Your task to perform on an android device: change timer sound Image 0: 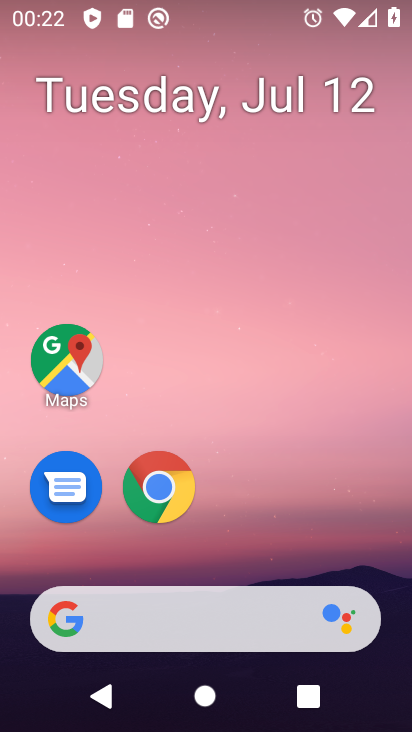
Step 0: drag from (297, 499) to (336, 116)
Your task to perform on an android device: change timer sound Image 1: 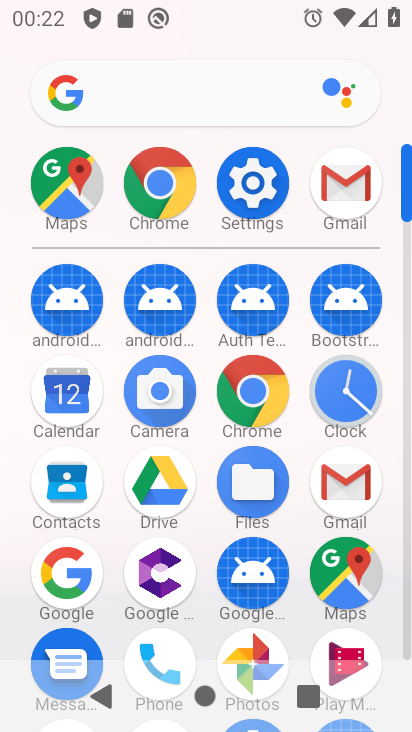
Step 1: click (348, 406)
Your task to perform on an android device: change timer sound Image 2: 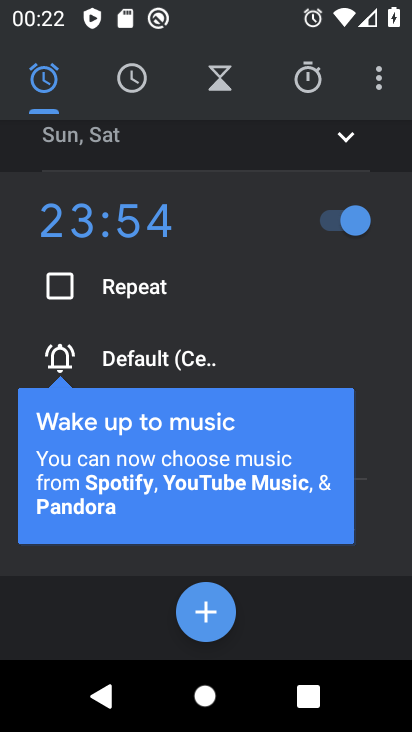
Step 2: click (379, 75)
Your task to perform on an android device: change timer sound Image 3: 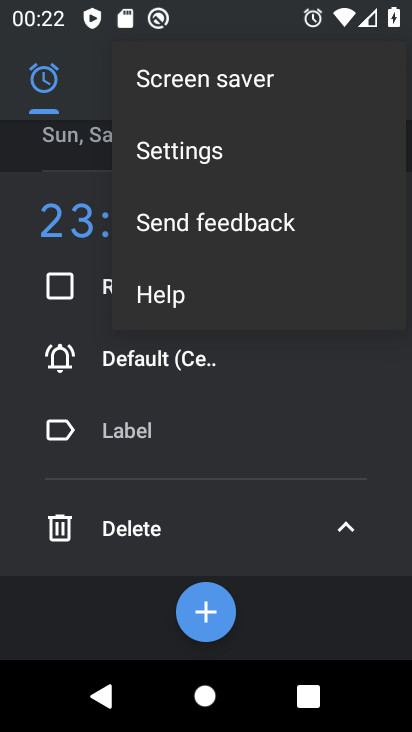
Step 3: click (195, 151)
Your task to perform on an android device: change timer sound Image 4: 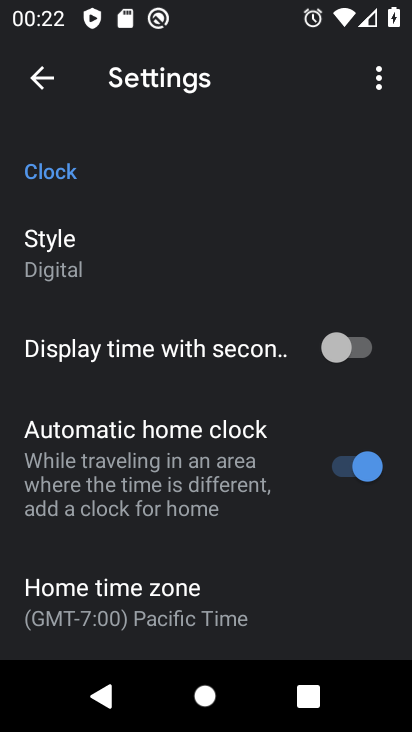
Step 4: drag from (266, 520) to (293, 240)
Your task to perform on an android device: change timer sound Image 5: 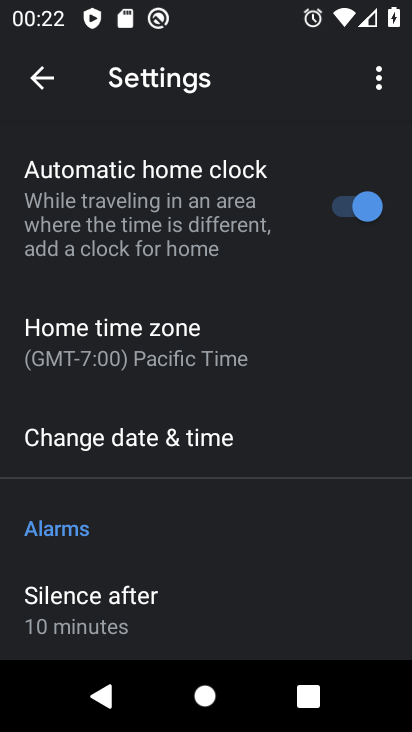
Step 5: drag from (301, 487) to (319, 226)
Your task to perform on an android device: change timer sound Image 6: 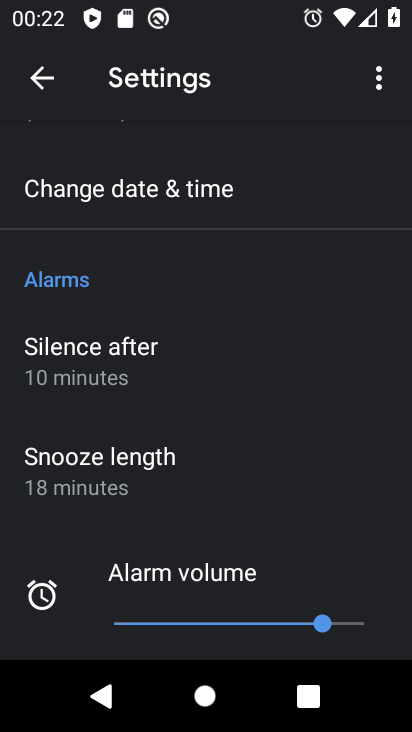
Step 6: drag from (278, 465) to (283, 240)
Your task to perform on an android device: change timer sound Image 7: 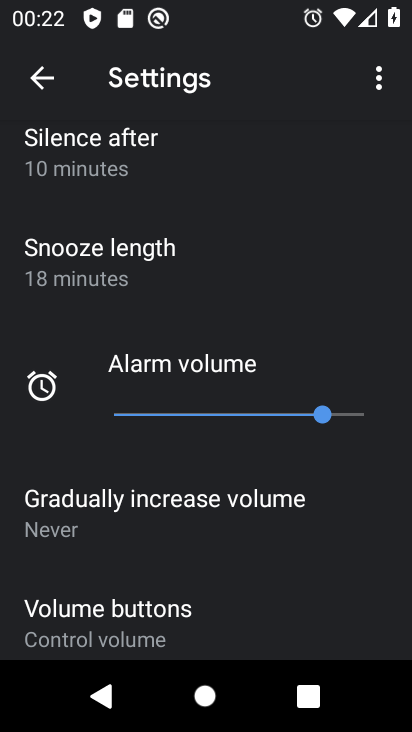
Step 7: drag from (346, 552) to (346, 400)
Your task to perform on an android device: change timer sound Image 8: 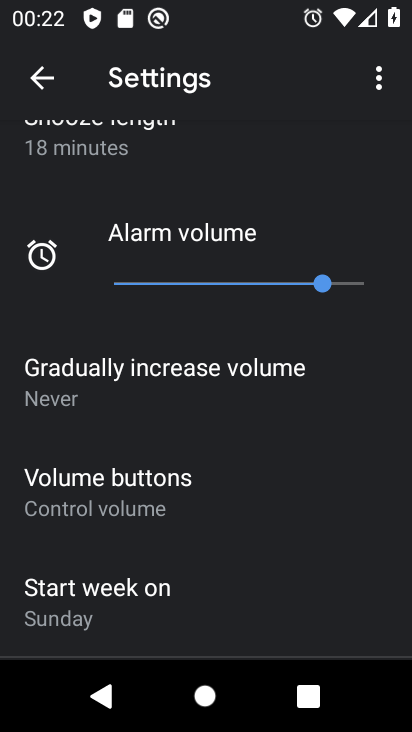
Step 8: drag from (347, 549) to (347, 347)
Your task to perform on an android device: change timer sound Image 9: 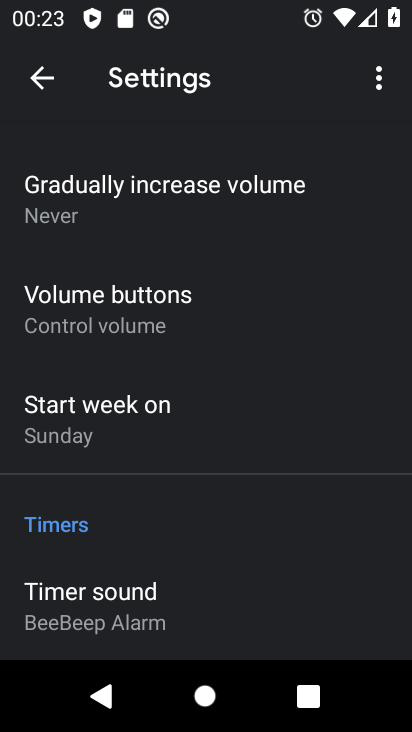
Step 9: drag from (303, 572) to (309, 385)
Your task to perform on an android device: change timer sound Image 10: 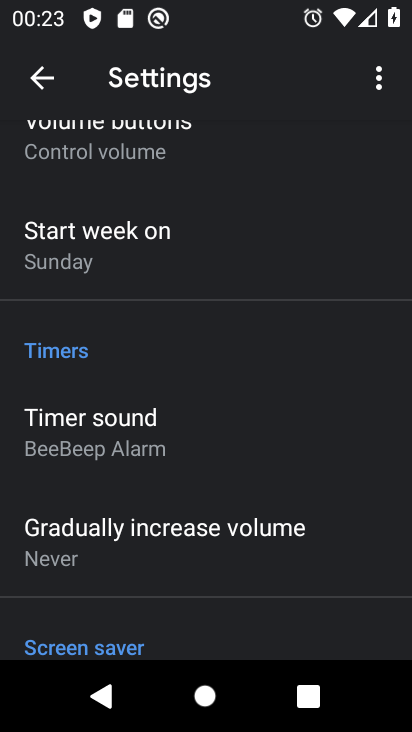
Step 10: drag from (292, 460) to (297, 315)
Your task to perform on an android device: change timer sound Image 11: 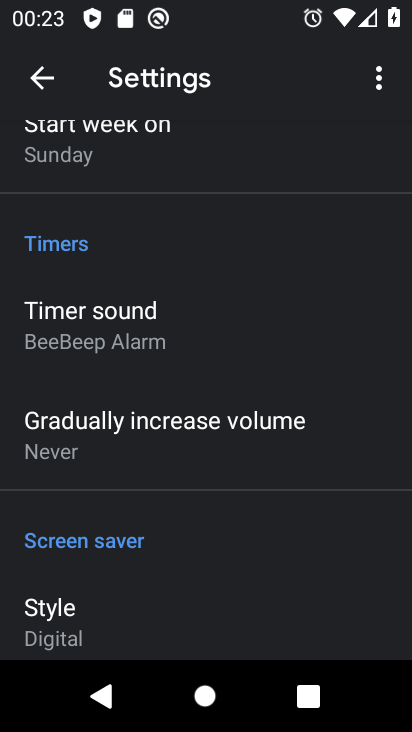
Step 11: click (150, 329)
Your task to perform on an android device: change timer sound Image 12: 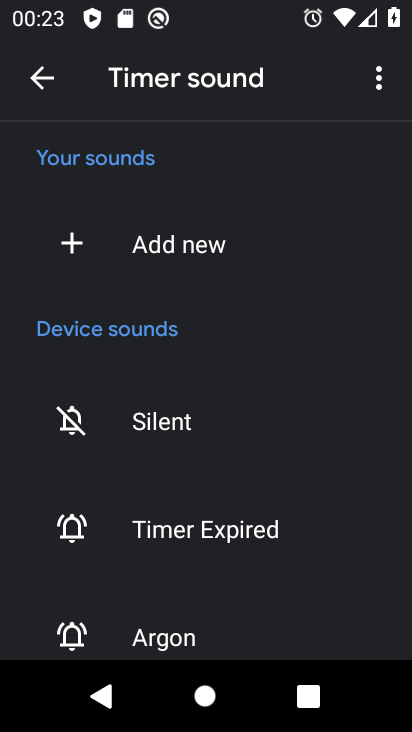
Step 12: drag from (325, 554) to (328, 494)
Your task to perform on an android device: change timer sound Image 13: 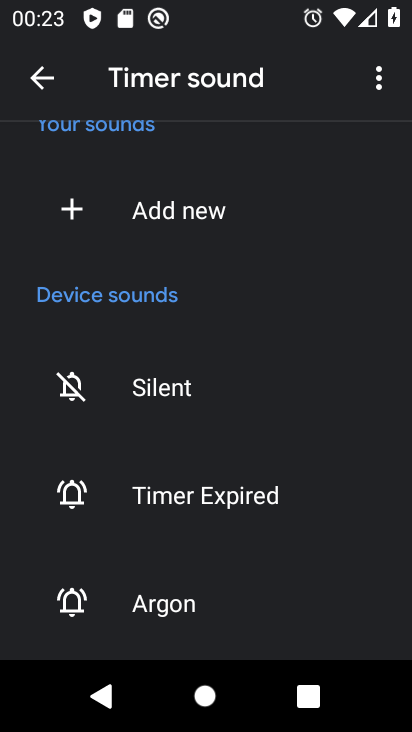
Step 13: click (255, 499)
Your task to perform on an android device: change timer sound Image 14: 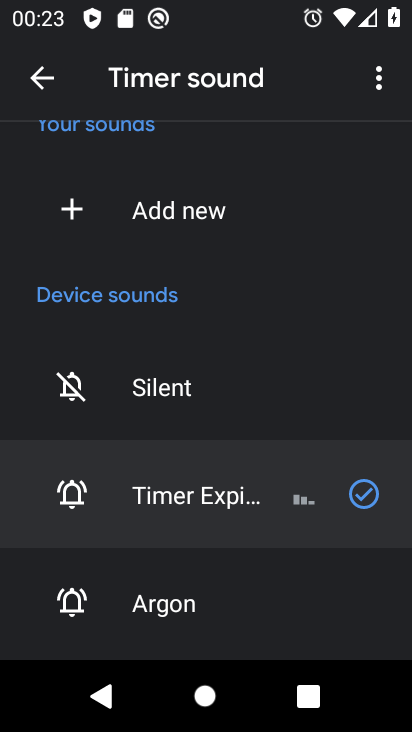
Step 14: task complete